Your task to perform on an android device: read, delete, or share a saved page in the chrome app Image 0: 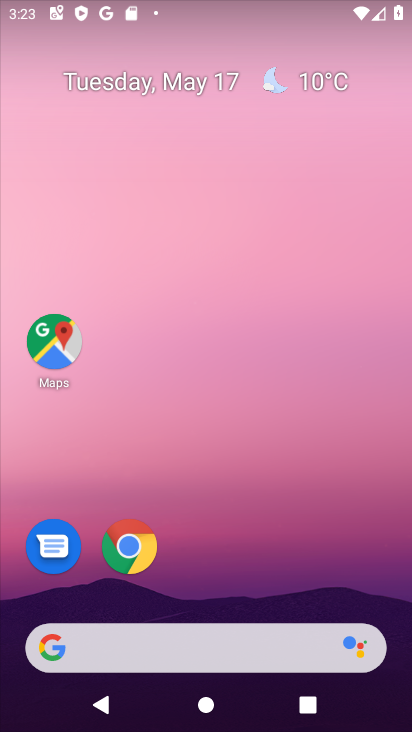
Step 0: drag from (233, 597) to (275, 140)
Your task to perform on an android device: read, delete, or share a saved page in the chrome app Image 1: 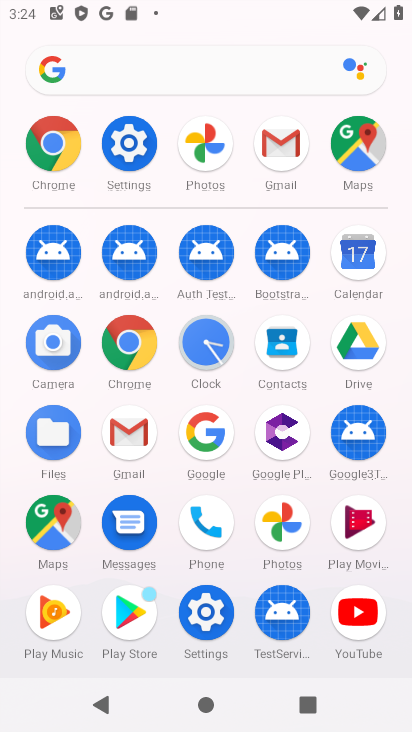
Step 1: click (127, 341)
Your task to perform on an android device: read, delete, or share a saved page in the chrome app Image 2: 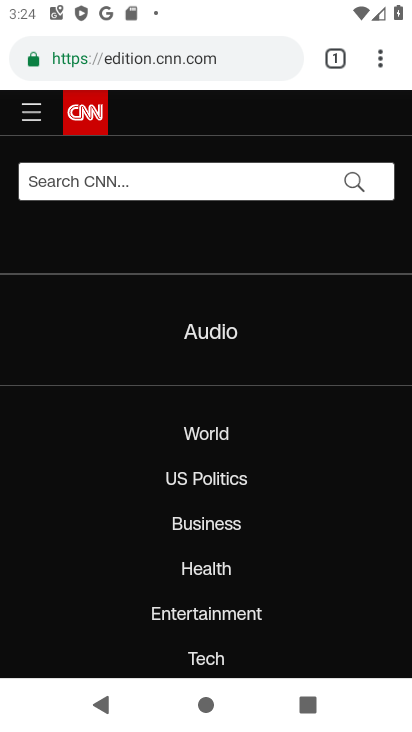
Step 2: click (377, 52)
Your task to perform on an android device: read, delete, or share a saved page in the chrome app Image 3: 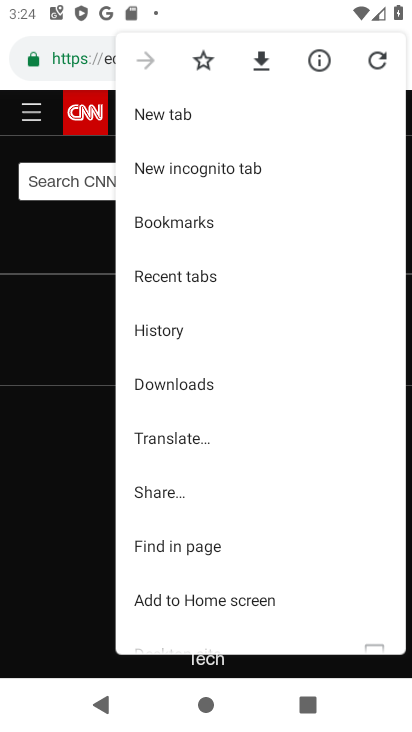
Step 3: click (184, 388)
Your task to perform on an android device: read, delete, or share a saved page in the chrome app Image 4: 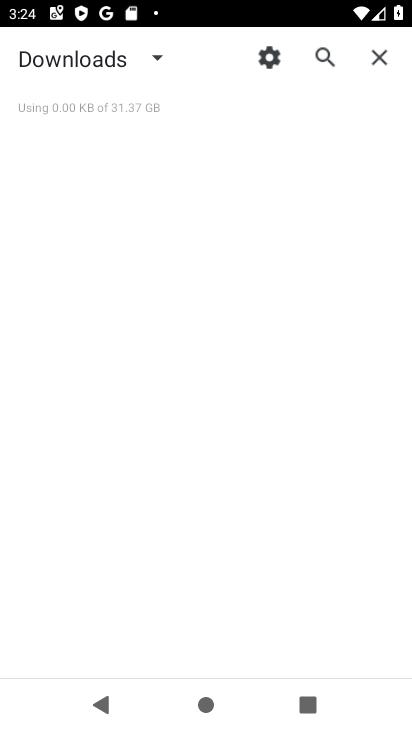
Step 4: task complete